Your task to perform on an android device: Open display settings Image 0: 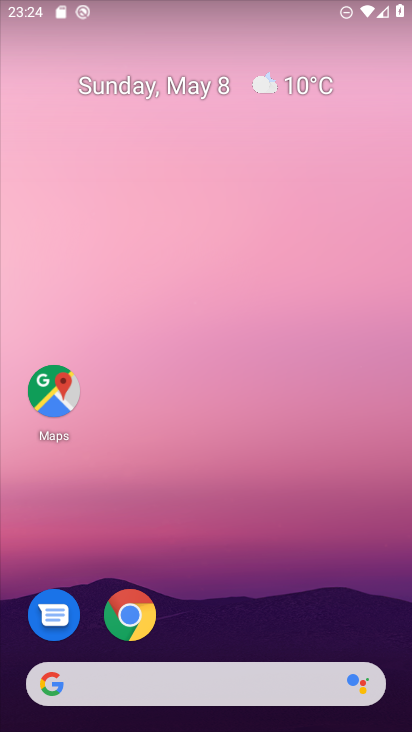
Step 0: drag from (318, 631) to (275, 180)
Your task to perform on an android device: Open display settings Image 1: 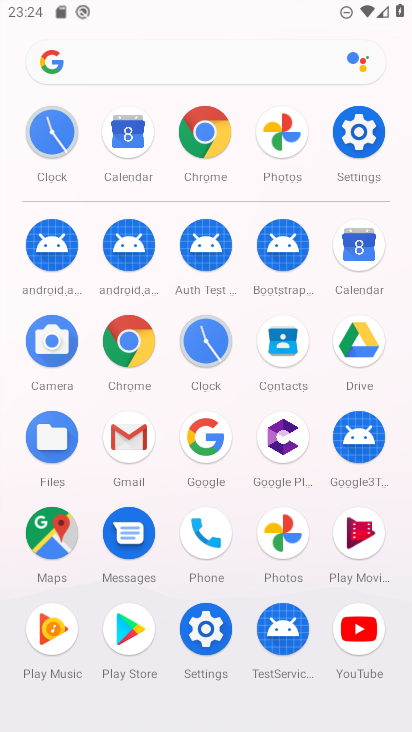
Step 1: click (371, 126)
Your task to perform on an android device: Open display settings Image 2: 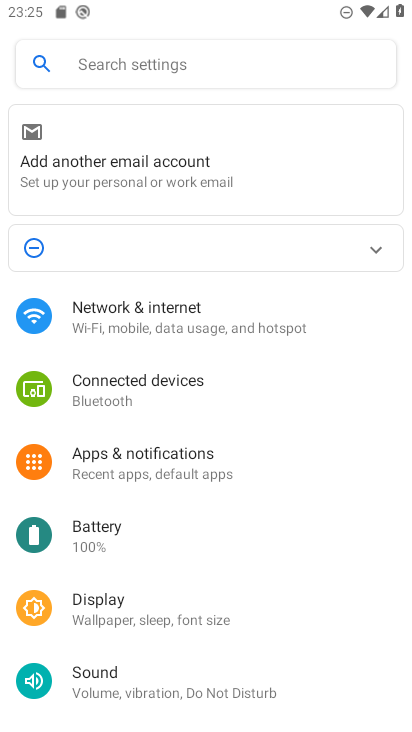
Step 2: click (116, 594)
Your task to perform on an android device: Open display settings Image 3: 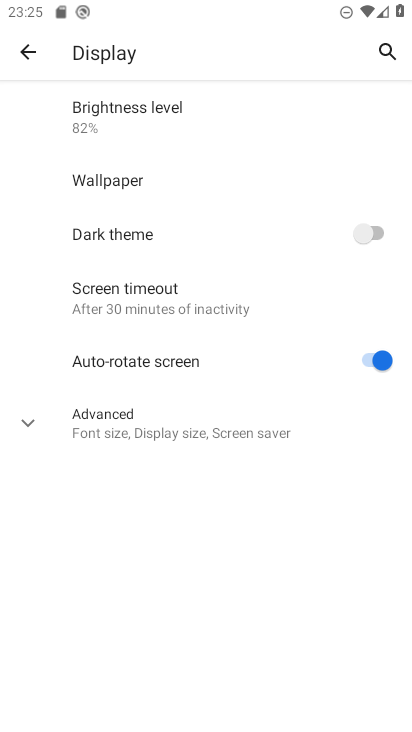
Step 3: task complete